Your task to perform on an android device: turn on the 24-hour format for clock Image 0: 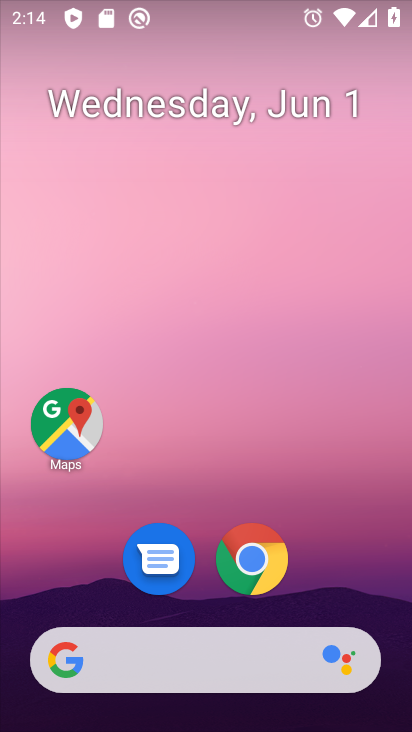
Step 0: press home button
Your task to perform on an android device: turn on the 24-hour format for clock Image 1: 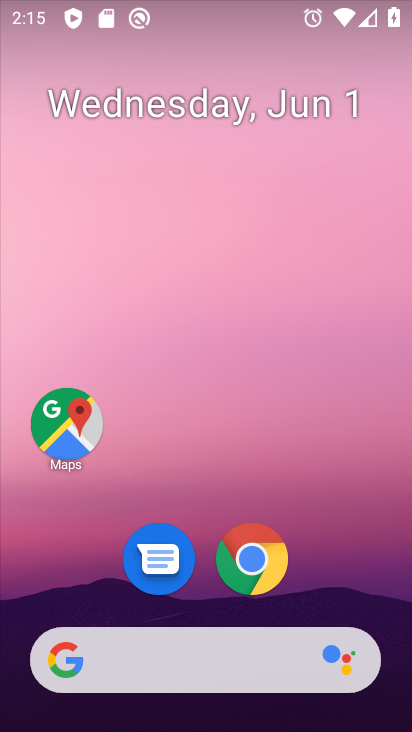
Step 1: drag from (324, 574) to (335, 231)
Your task to perform on an android device: turn on the 24-hour format for clock Image 2: 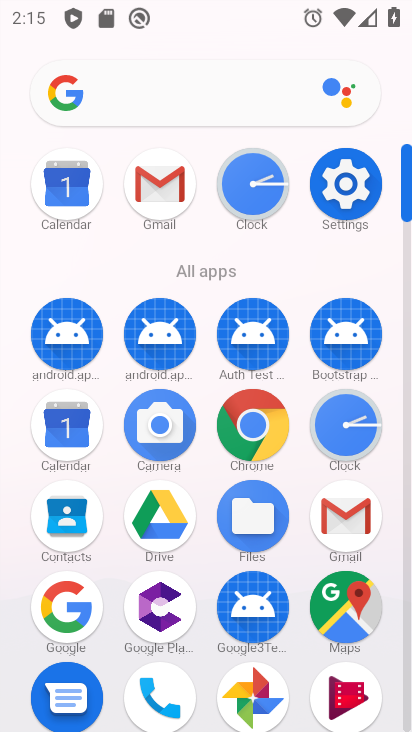
Step 2: click (359, 184)
Your task to perform on an android device: turn on the 24-hour format for clock Image 3: 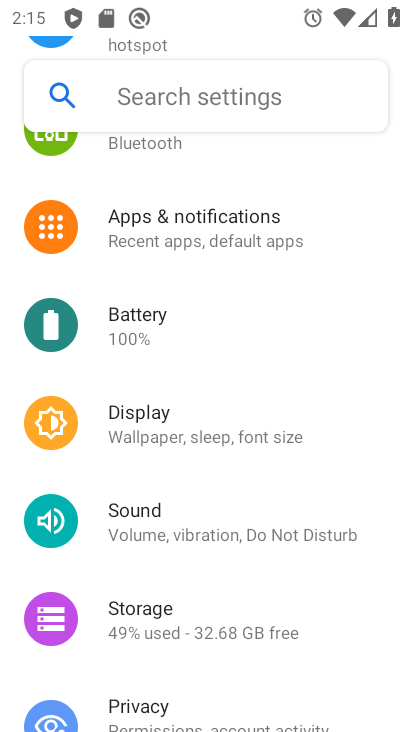
Step 3: drag from (244, 668) to (279, 259)
Your task to perform on an android device: turn on the 24-hour format for clock Image 4: 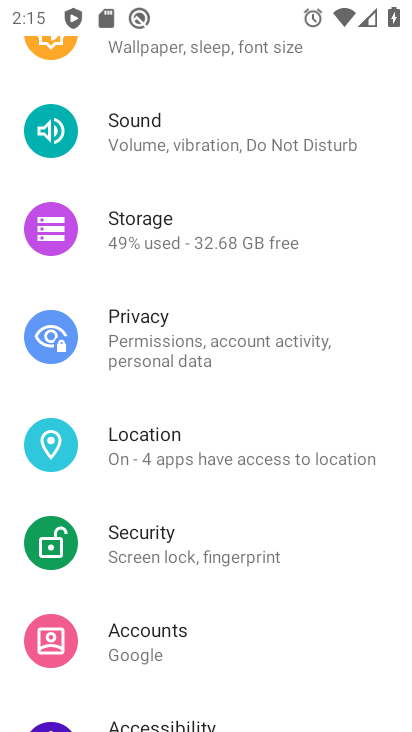
Step 4: drag from (262, 620) to (278, 272)
Your task to perform on an android device: turn on the 24-hour format for clock Image 5: 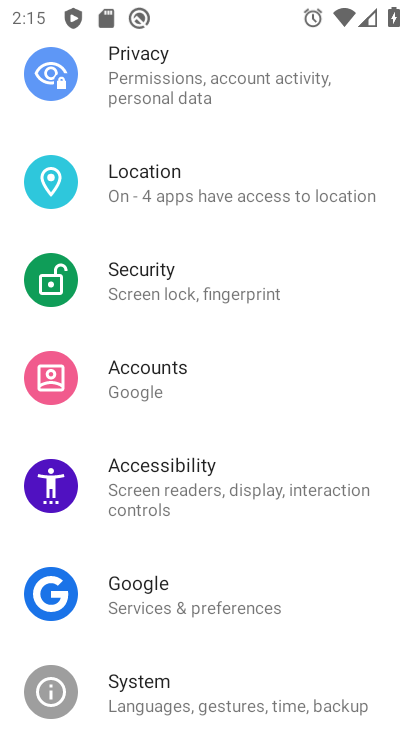
Step 5: click (161, 698)
Your task to perform on an android device: turn on the 24-hour format for clock Image 6: 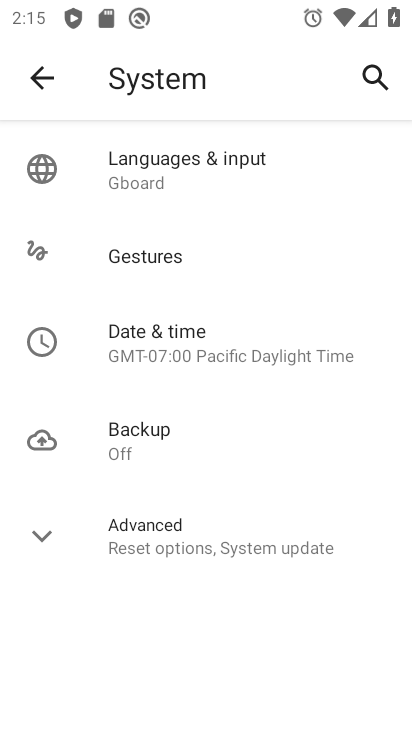
Step 6: click (168, 328)
Your task to perform on an android device: turn on the 24-hour format for clock Image 7: 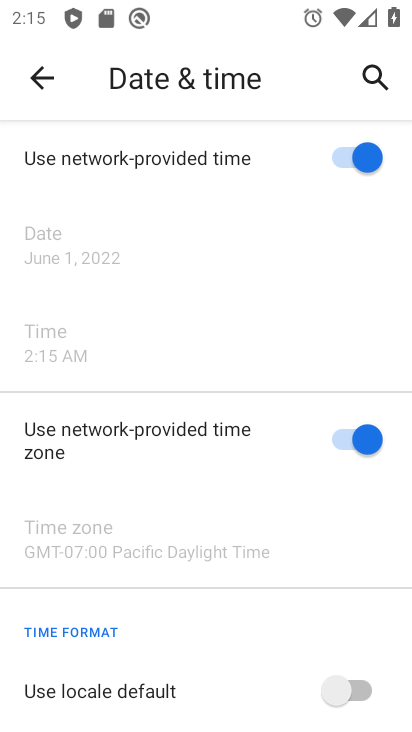
Step 7: drag from (232, 224) to (239, 186)
Your task to perform on an android device: turn on the 24-hour format for clock Image 8: 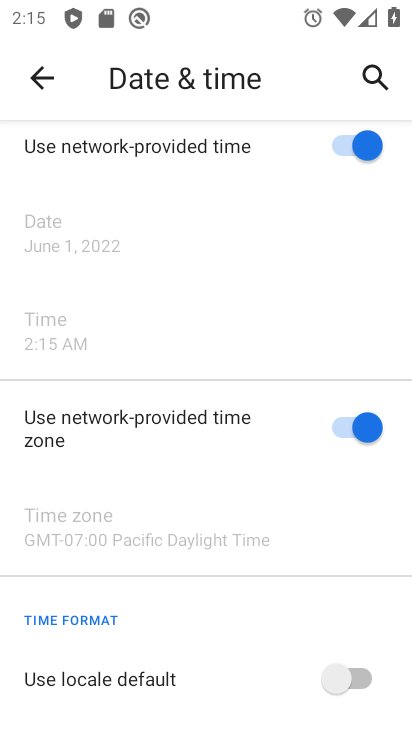
Step 8: drag from (273, 496) to (309, 135)
Your task to perform on an android device: turn on the 24-hour format for clock Image 9: 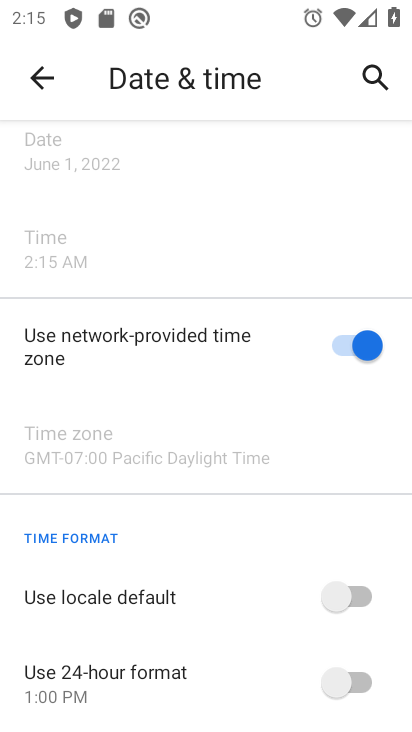
Step 9: click (348, 600)
Your task to perform on an android device: turn on the 24-hour format for clock Image 10: 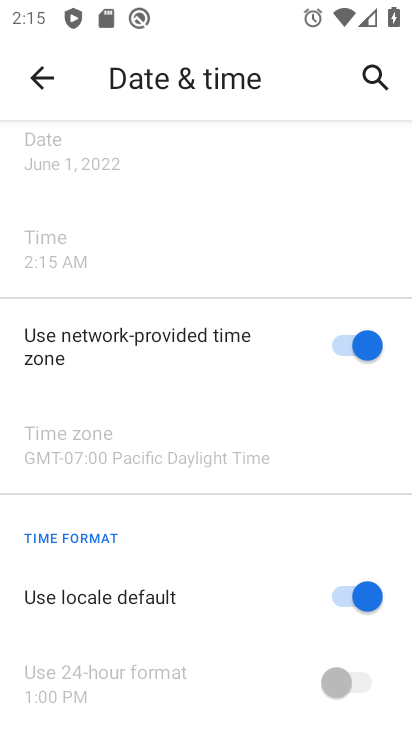
Step 10: click (337, 688)
Your task to perform on an android device: turn on the 24-hour format for clock Image 11: 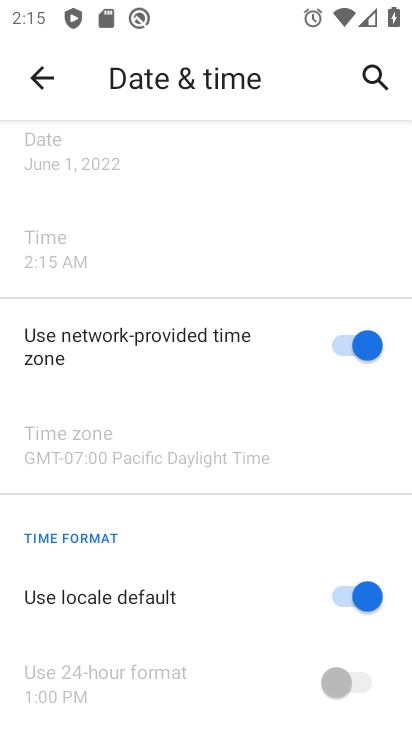
Step 11: click (369, 600)
Your task to perform on an android device: turn on the 24-hour format for clock Image 12: 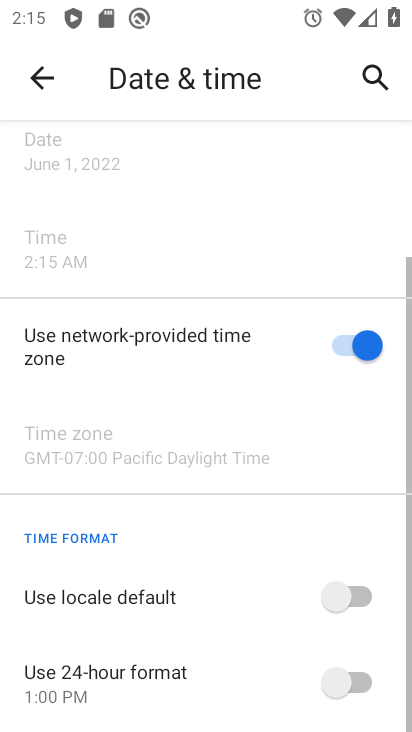
Step 12: click (345, 679)
Your task to perform on an android device: turn on the 24-hour format for clock Image 13: 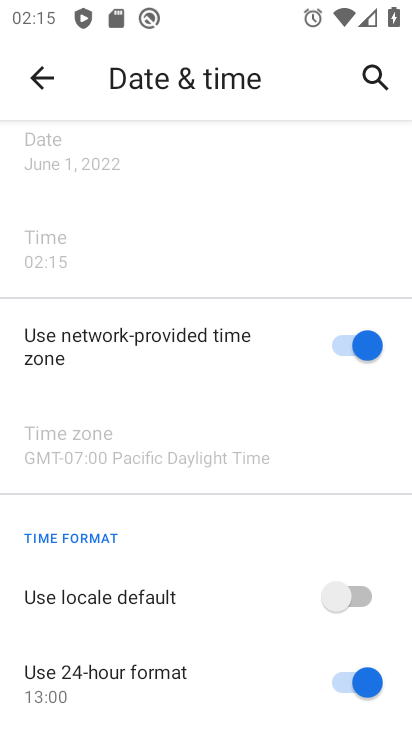
Step 13: task complete